Your task to perform on an android device: Go to privacy settings Image 0: 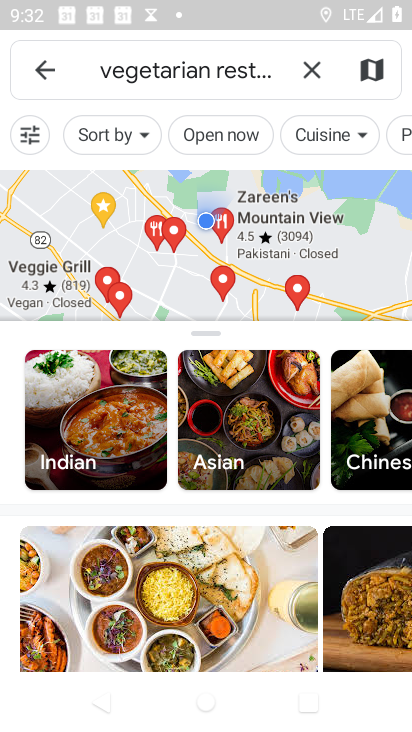
Step 0: press home button
Your task to perform on an android device: Go to privacy settings Image 1: 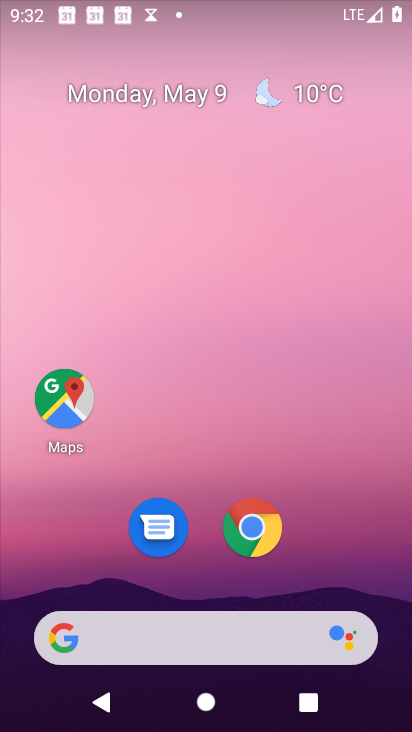
Step 1: drag from (229, 588) to (267, 81)
Your task to perform on an android device: Go to privacy settings Image 2: 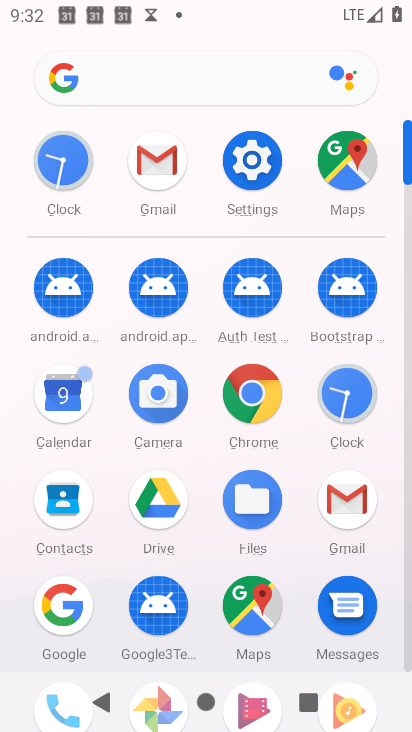
Step 2: click (259, 177)
Your task to perform on an android device: Go to privacy settings Image 3: 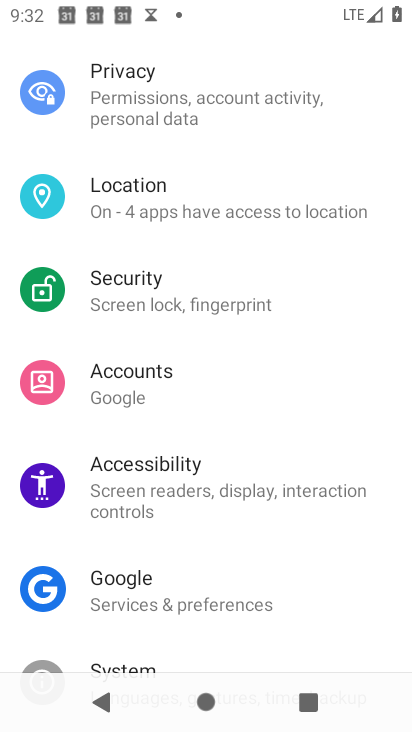
Step 3: click (163, 118)
Your task to perform on an android device: Go to privacy settings Image 4: 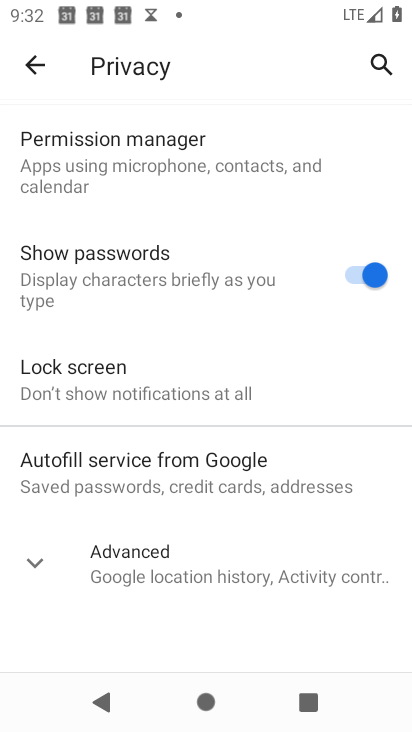
Step 4: task complete